Your task to perform on an android device: Is it going to rain tomorrow? Image 0: 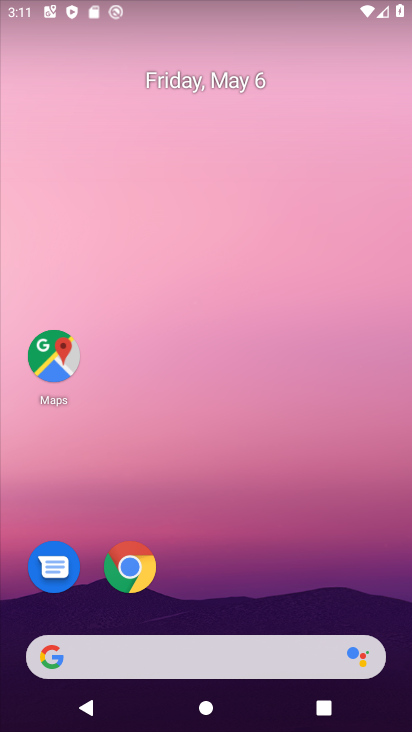
Step 0: click (122, 565)
Your task to perform on an android device: Is it going to rain tomorrow? Image 1: 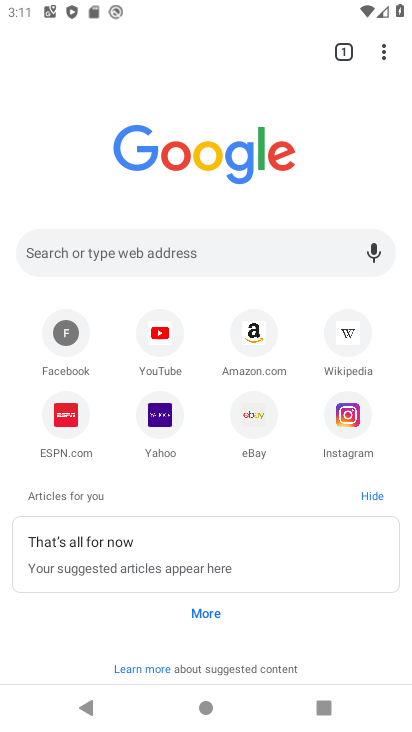
Step 1: click (164, 255)
Your task to perform on an android device: Is it going to rain tomorrow? Image 2: 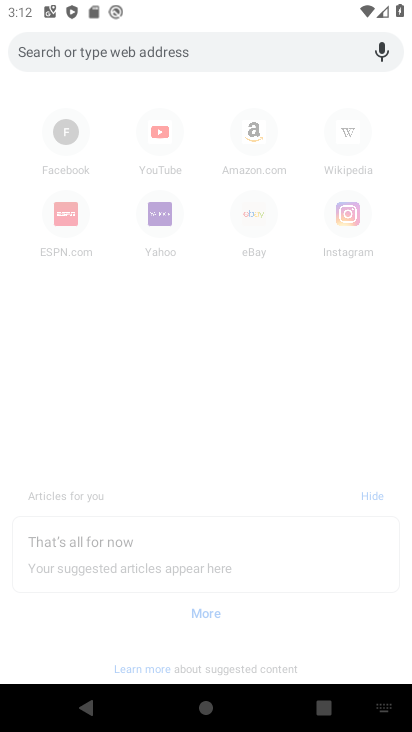
Step 2: type "is it going to rain tomorrow"
Your task to perform on an android device: Is it going to rain tomorrow? Image 3: 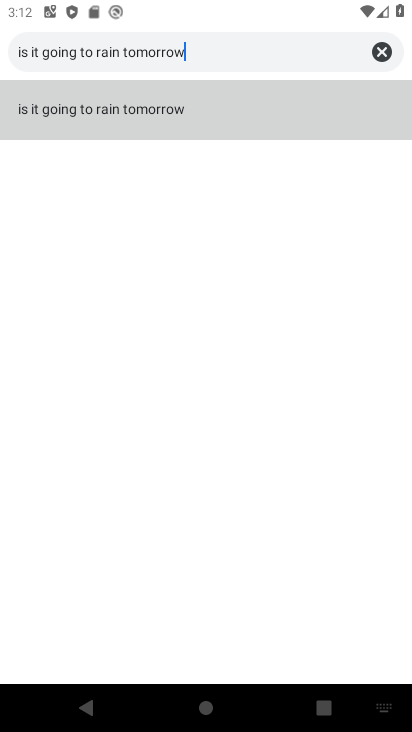
Step 3: click (186, 115)
Your task to perform on an android device: Is it going to rain tomorrow? Image 4: 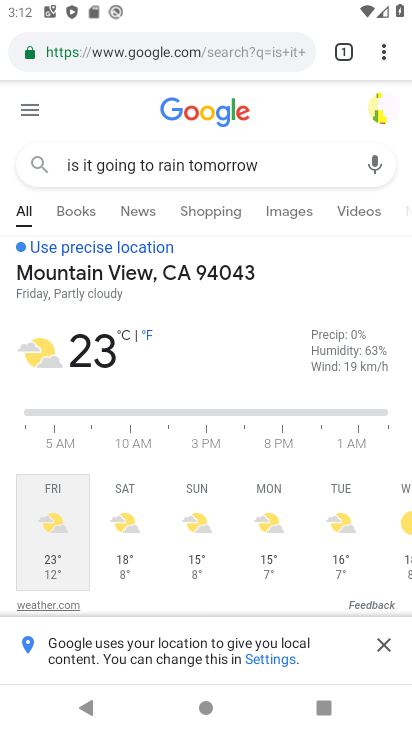
Step 4: task complete